Your task to perform on an android device: Open Youtube and go to "Your channel" Image 0: 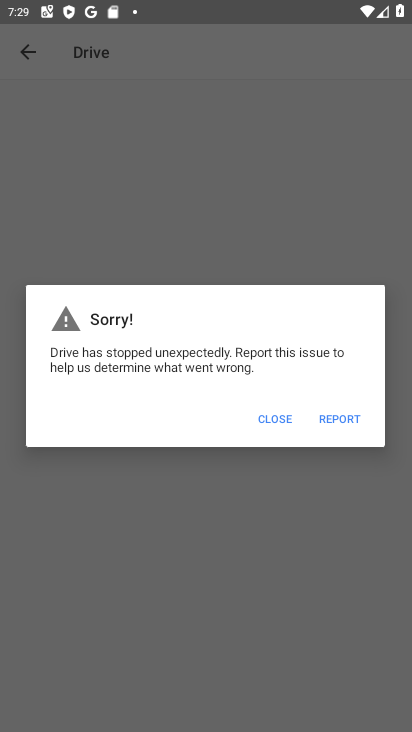
Step 0: press home button
Your task to perform on an android device: Open Youtube and go to "Your channel" Image 1: 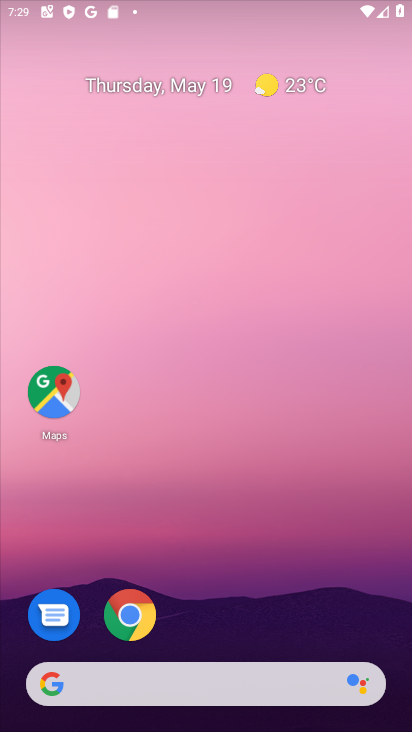
Step 1: drag from (343, 598) to (349, 104)
Your task to perform on an android device: Open Youtube and go to "Your channel" Image 2: 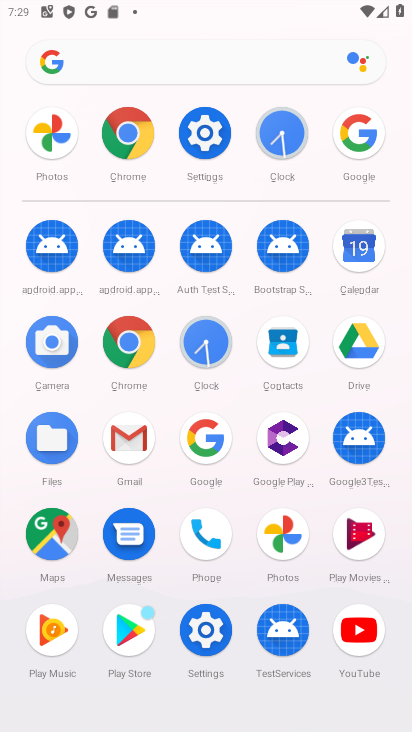
Step 2: click (363, 649)
Your task to perform on an android device: Open Youtube and go to "Your channel" Image 3: 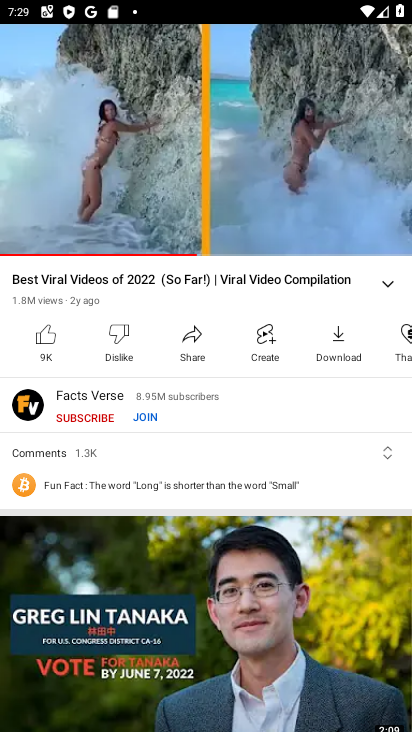
Step 3: press back button
Your task to perform on an android device: Open Youtube and go to "Your channel" Image 4: 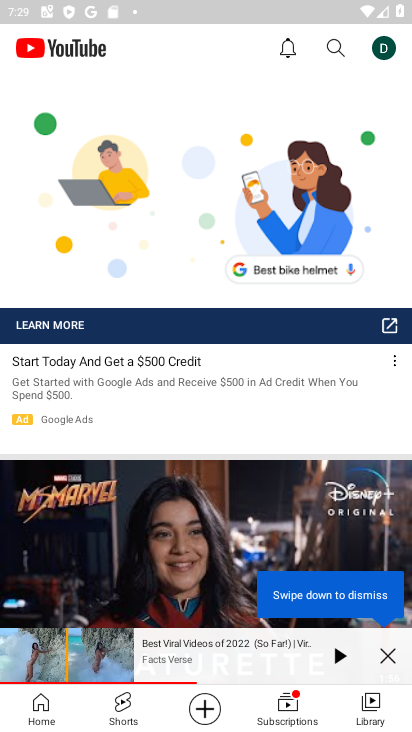
Step 4: click (375, 42)
Your task to perform on an android device: Open Youtube and go to "Your channel" Image 5: 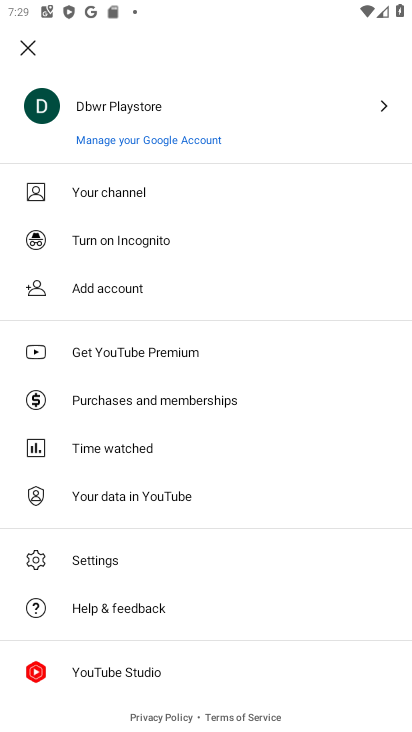
Step 5: click (139, 181)
Your task to perform on an android device: Open Youtube and go to "Your channel" Image 6: 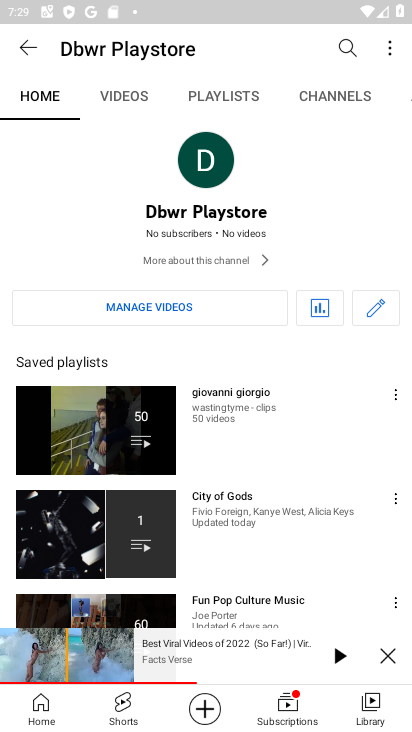
Step 6: click (386, 652)
Your task to perform on an android device: Open Youtube and go to "Your channel" Image 7: 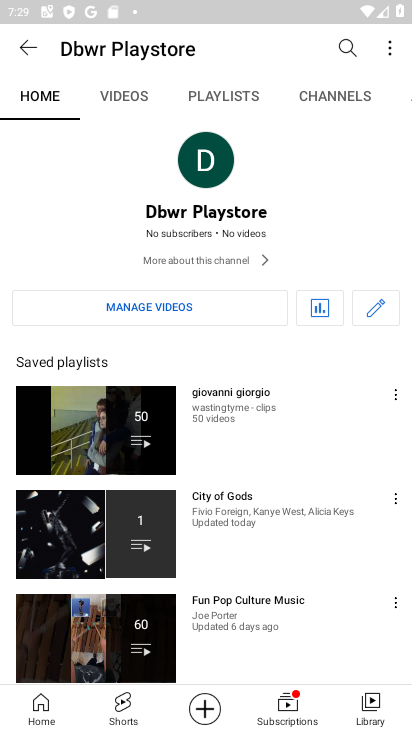
Step 7: task complete